Your task to perform on an android device: Open sound settings Image 0: 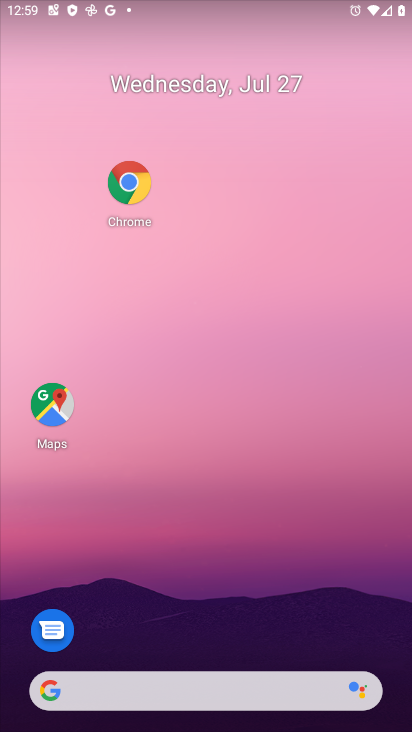
Step 0: drag from (235, 601) to (297, 29)
Your task to perform on an android device: Open sound settings Image 1: 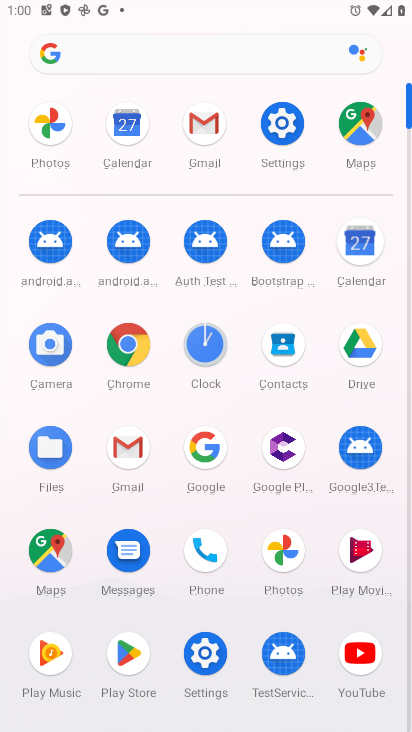
Step 1: click (294, 127)
Your task to perform on an android device: Open sound settings Image 2: 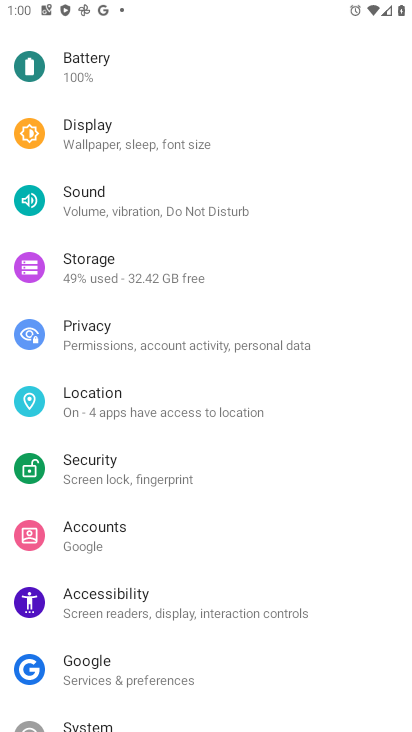
Step 2: click (224, 208)
Your task to perform on an android device: Open sound settings Image 3: 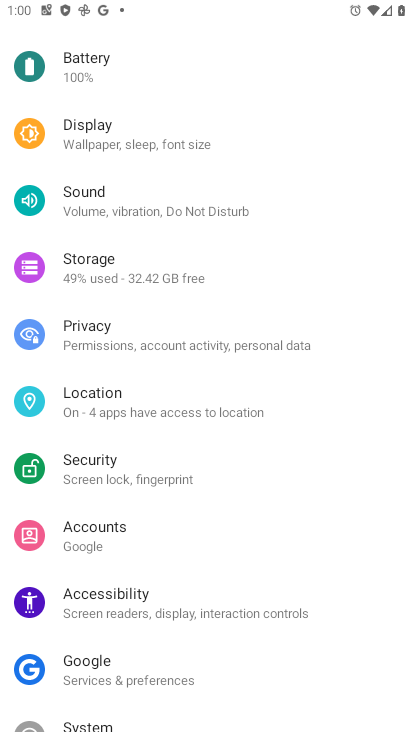
Step 3: click (224, 208)
Your task to perform on an android device: Open sound settings Image 4: 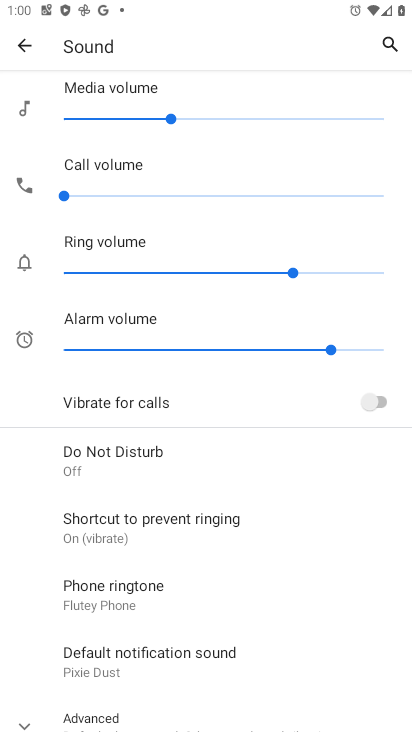
Step 4: task complete